Your task to perform on an android device: What is the news today? Image 0: 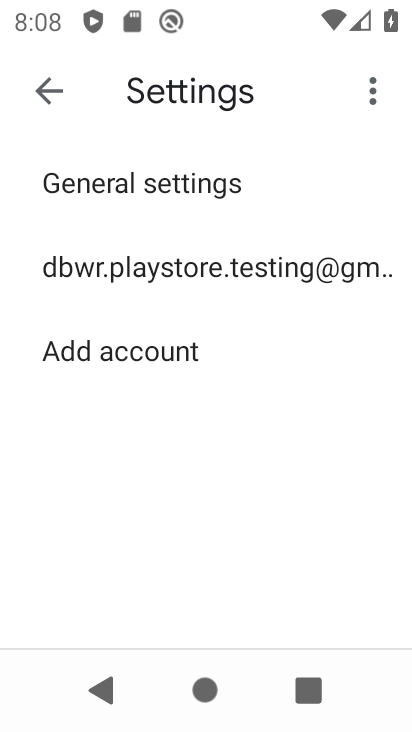
Step 0: drag from (200, 524) to (183, 256)
Your task to perform on an android device: What is the news today? Image 1: 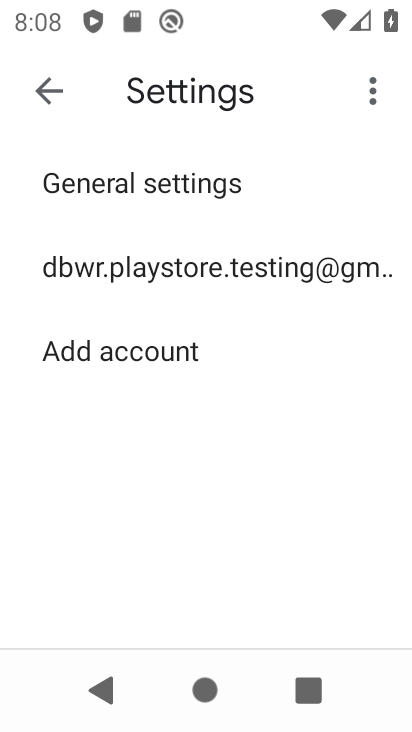
Step 1: press home button
Your task to perform on an android device: What is the news today? Image 2: 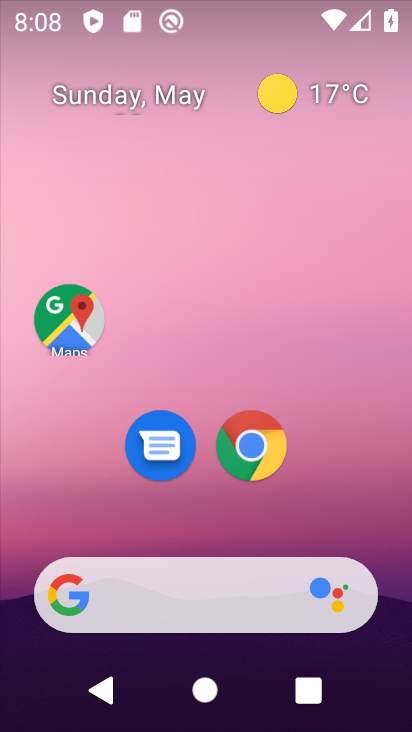
Step 2: drag from (203, 519) to (221, 189)
Your task to perform on an android device: What is the news today? Image 3: 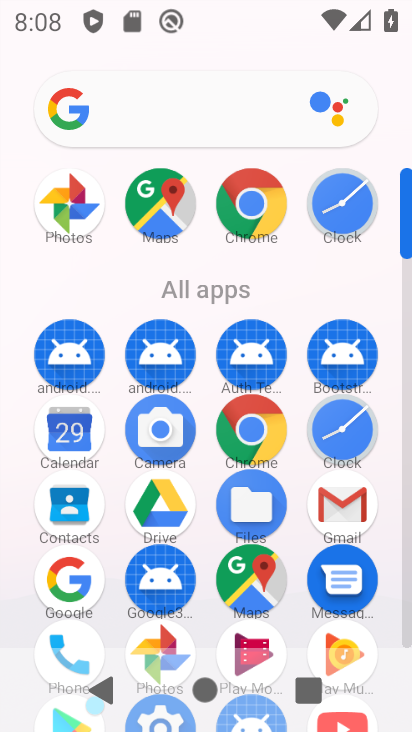
Step 3: click (77, 560)
Your task to perform on an android device: What is the news today? Image 4: 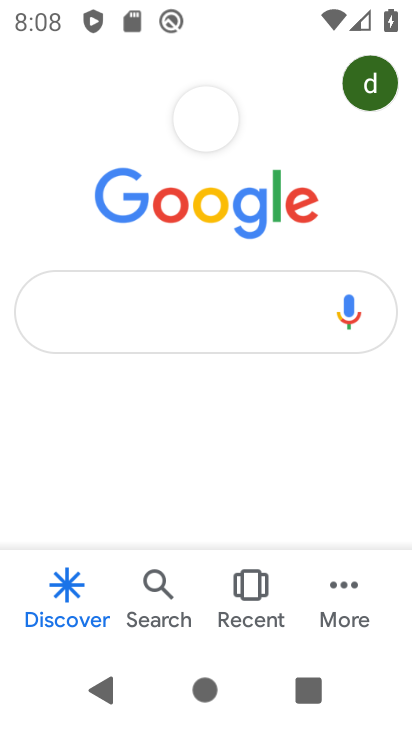
Step 4: click (181, 326)
Your task to perform on an android device: What is the news today? Image 5: 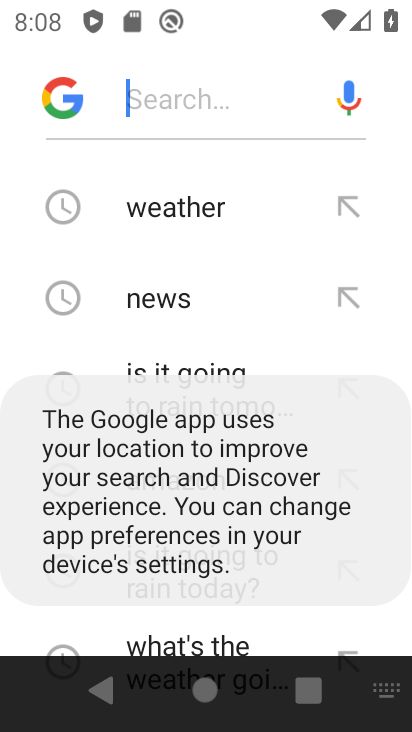
Step 5: click (171, 285)
Your task to perform on an android device: What is the news today? Image 6: 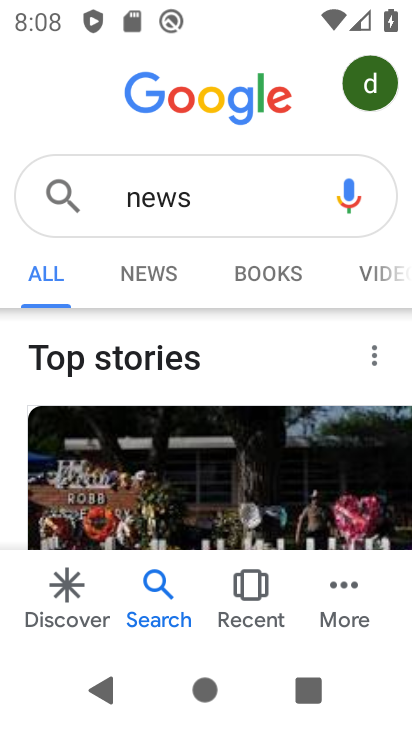
Step 6: drag from (205, 472) to (214, 274)
Your task to perform on an android device: What is the news today? Image 7: 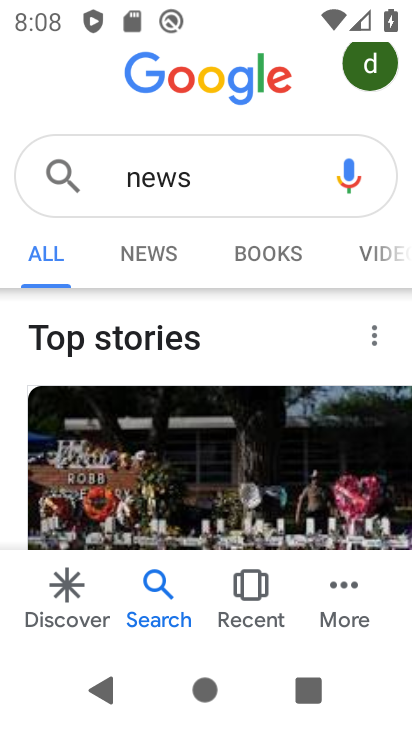
Step 7: drag from (200, 427) to (247, 159)
Your task to perform on an android device: What is the news today? Image 8: 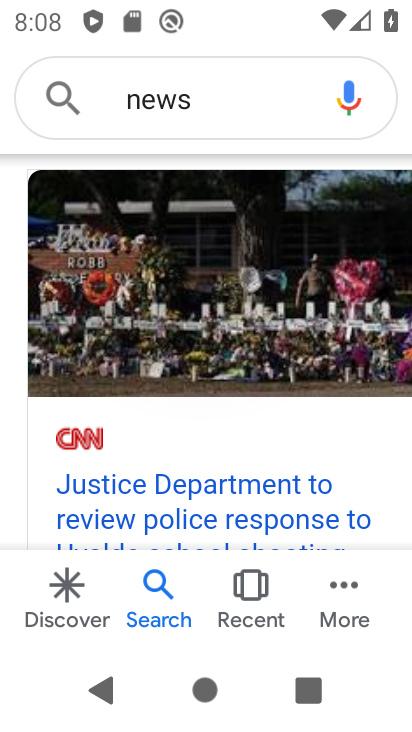
Step 8: drag from (248, 361) to (268, 502)
Your task to perform on an android device: What is the news today? Image 9: 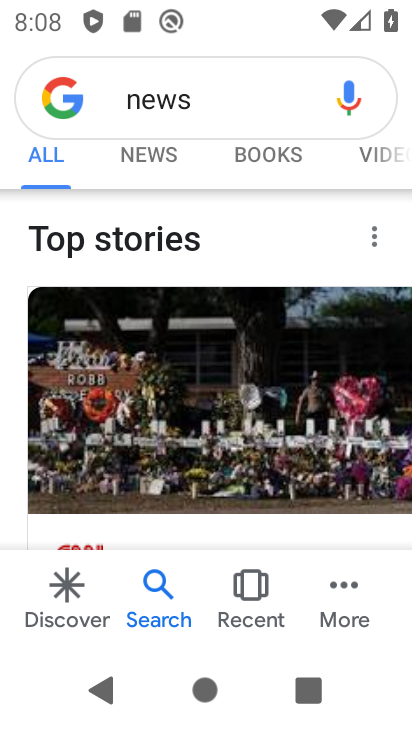
Step 9: drag from (256, 309) to (259, 409)
Your task to perform on an android device: What is the news today? Image 10: 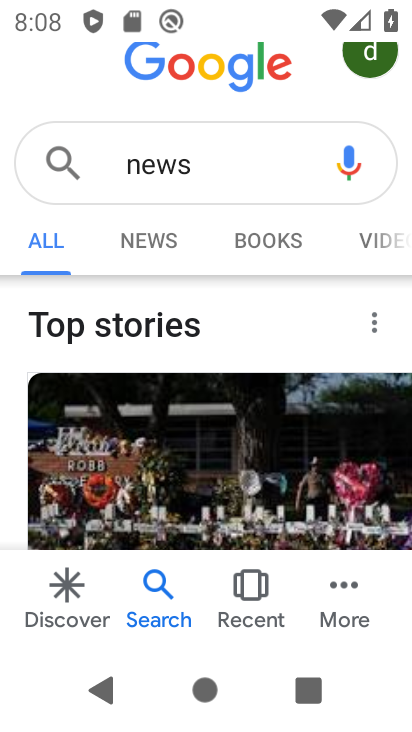
Step 10: click (155, 237)
Your task to perform on an android device: What is the news today? Image 11: 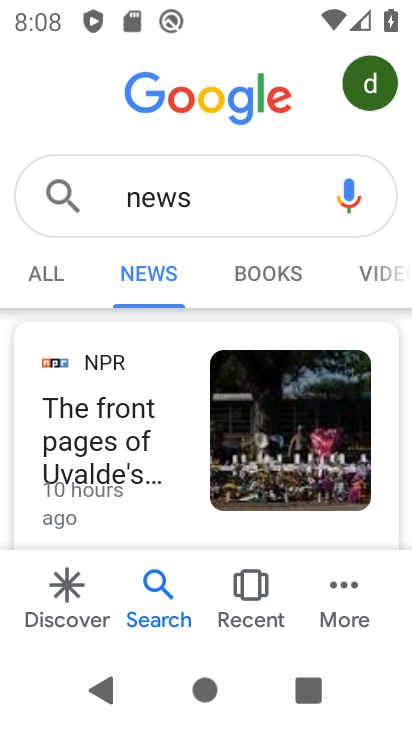
Step 11: task complete